Your task to perform on an android device: Open location settings Image 0: 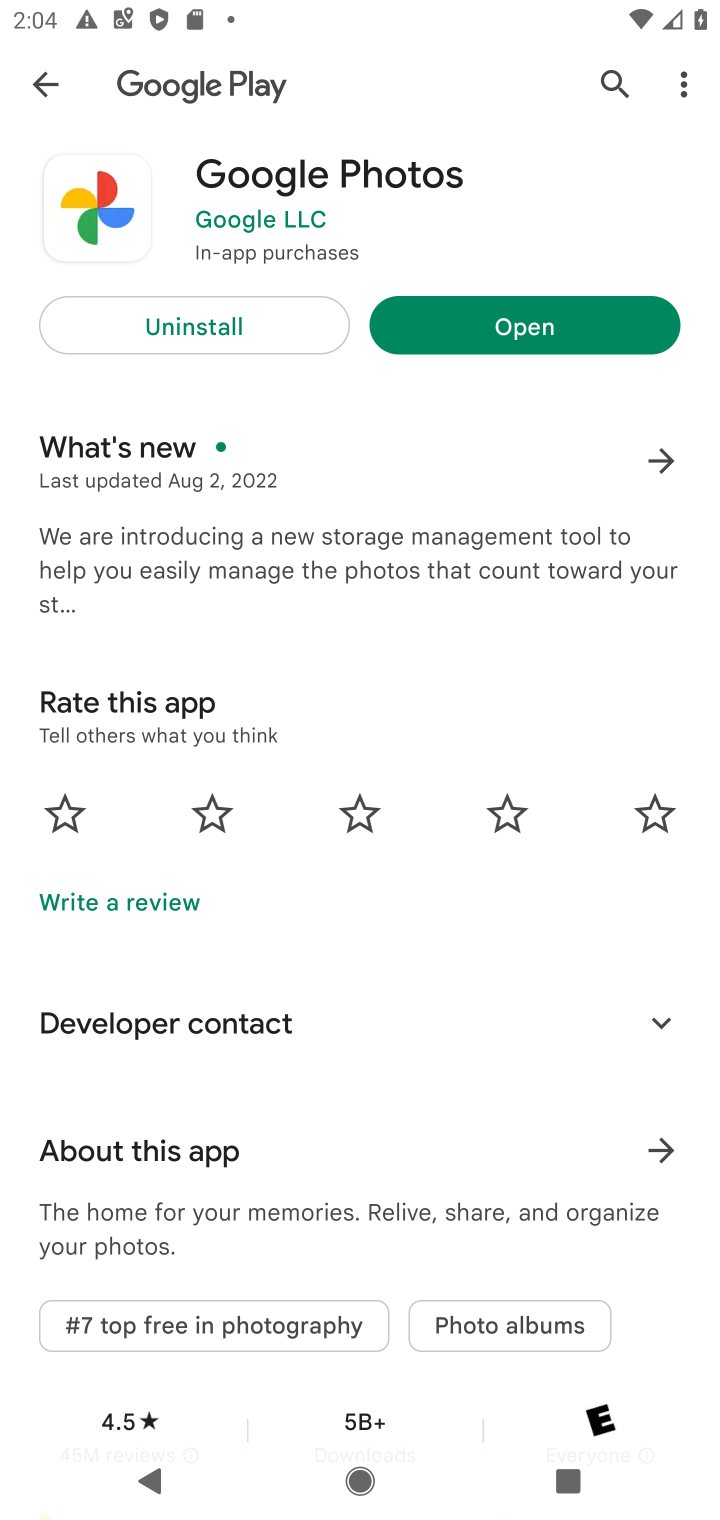
Step 0: press home button
Your task to perform on an android device: Open location settings Image 1: 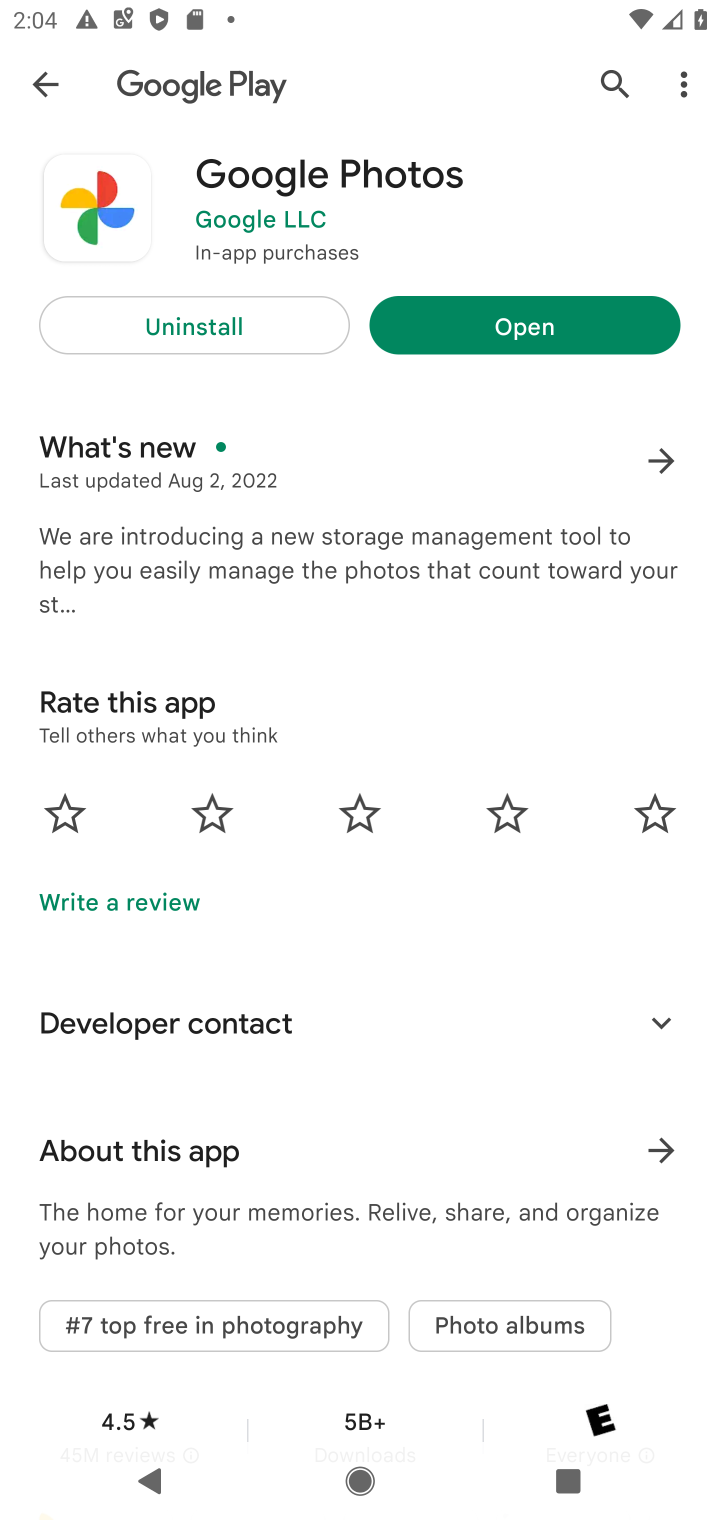
Step 1: press home button
Your task to perform on an android device: Open location settings Image 2: 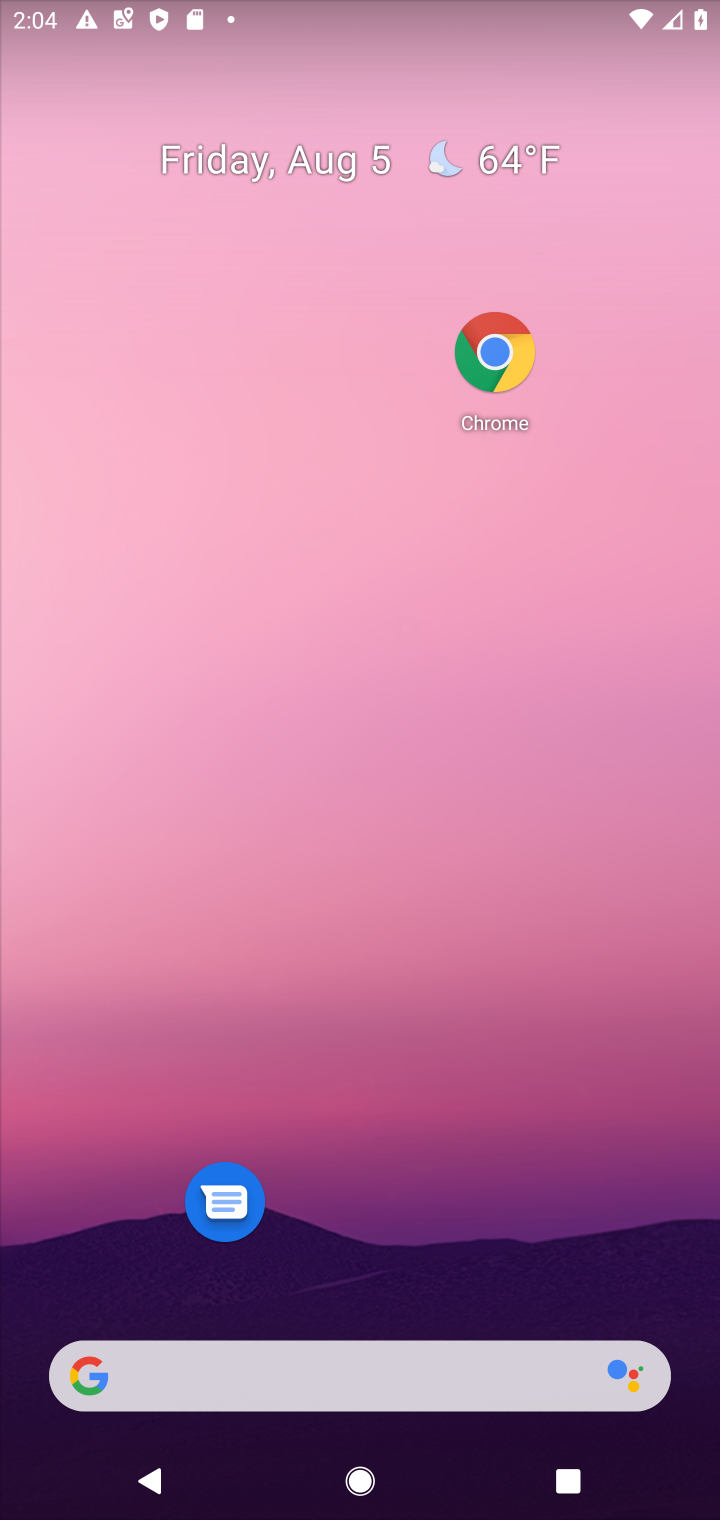
Step 2: drag from (422, 471) to (379, 201)
Your task to perform on an android device: Open location settings Image 3: 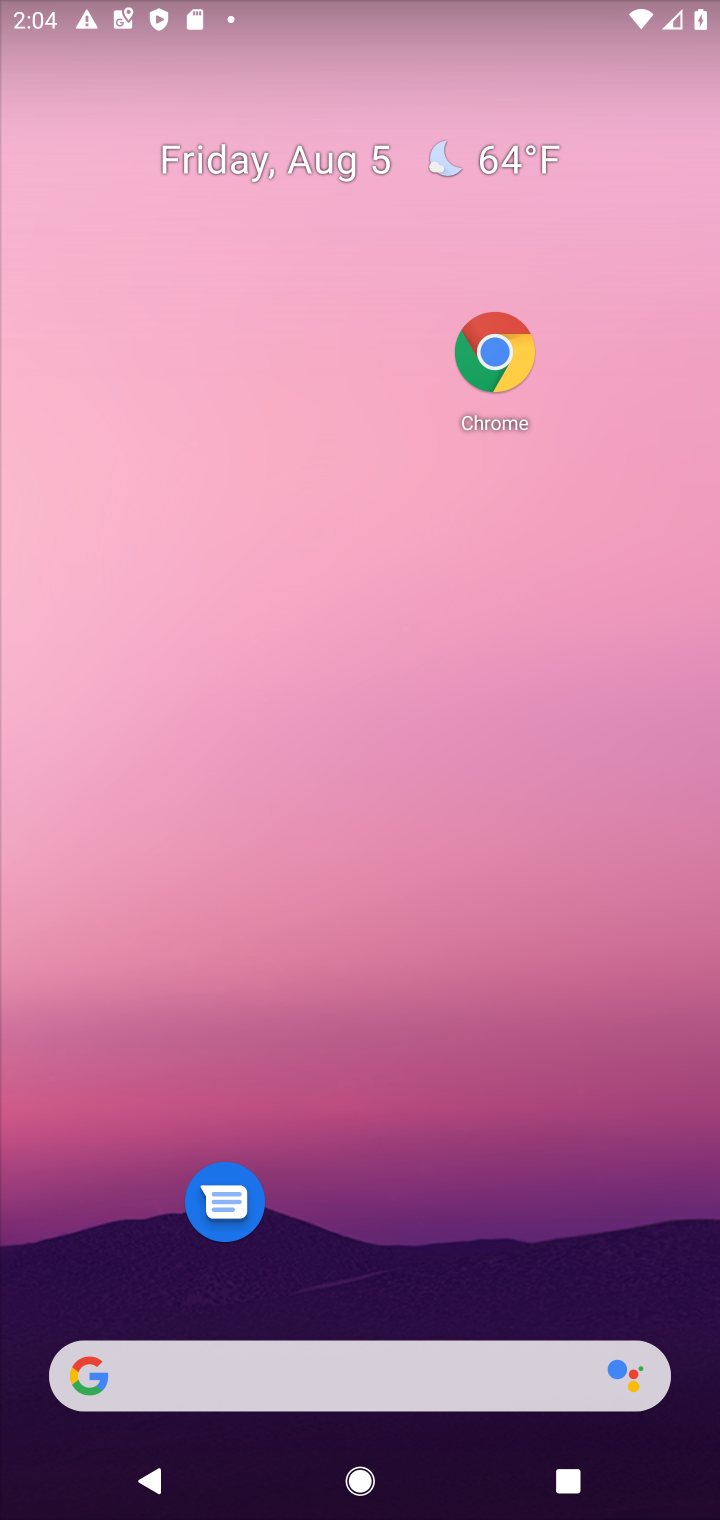
Step 3: drag from (425, 959) to (304, 24)
Your task to perform on an android device: Open location settings Image 4: 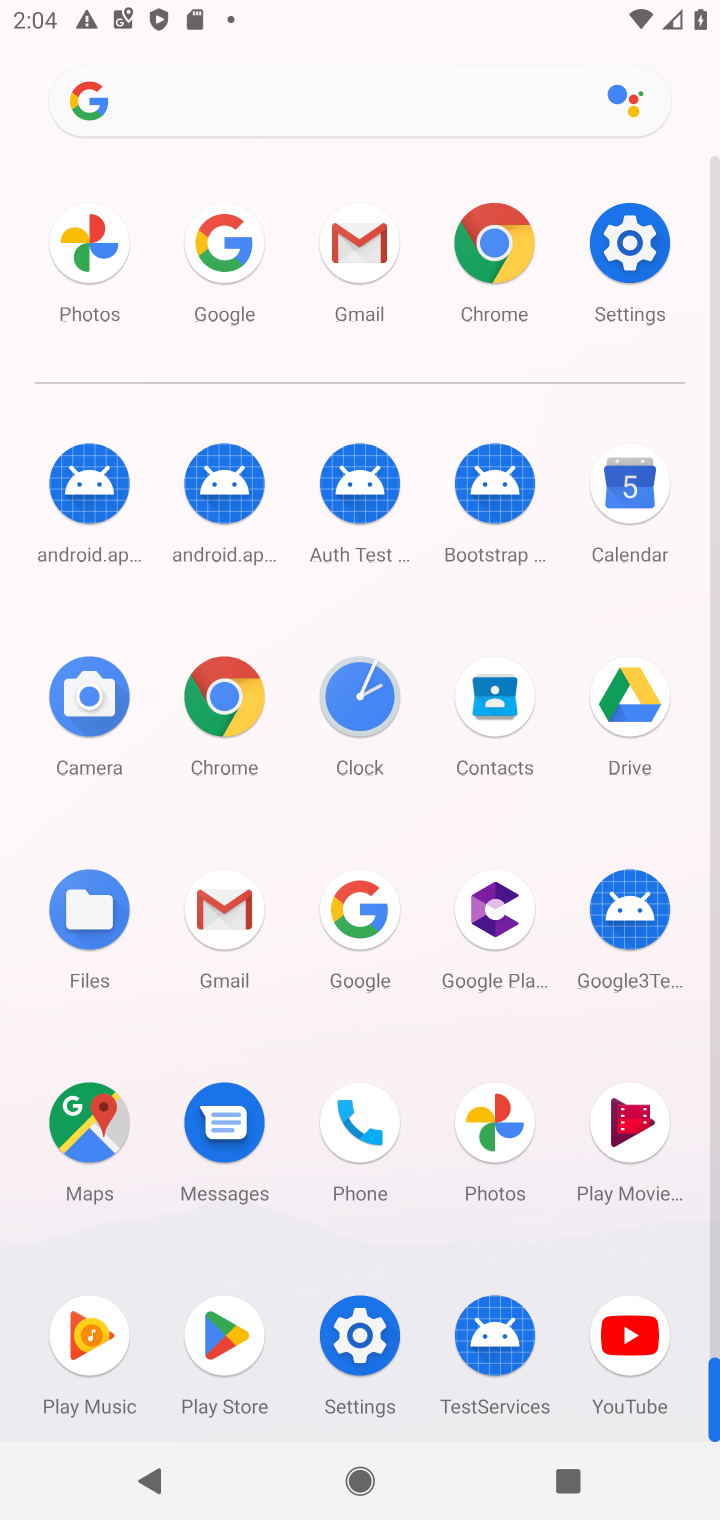
Step 4: click (348, 1331)
Your task to perform on an android device: Open location settings Image 5: 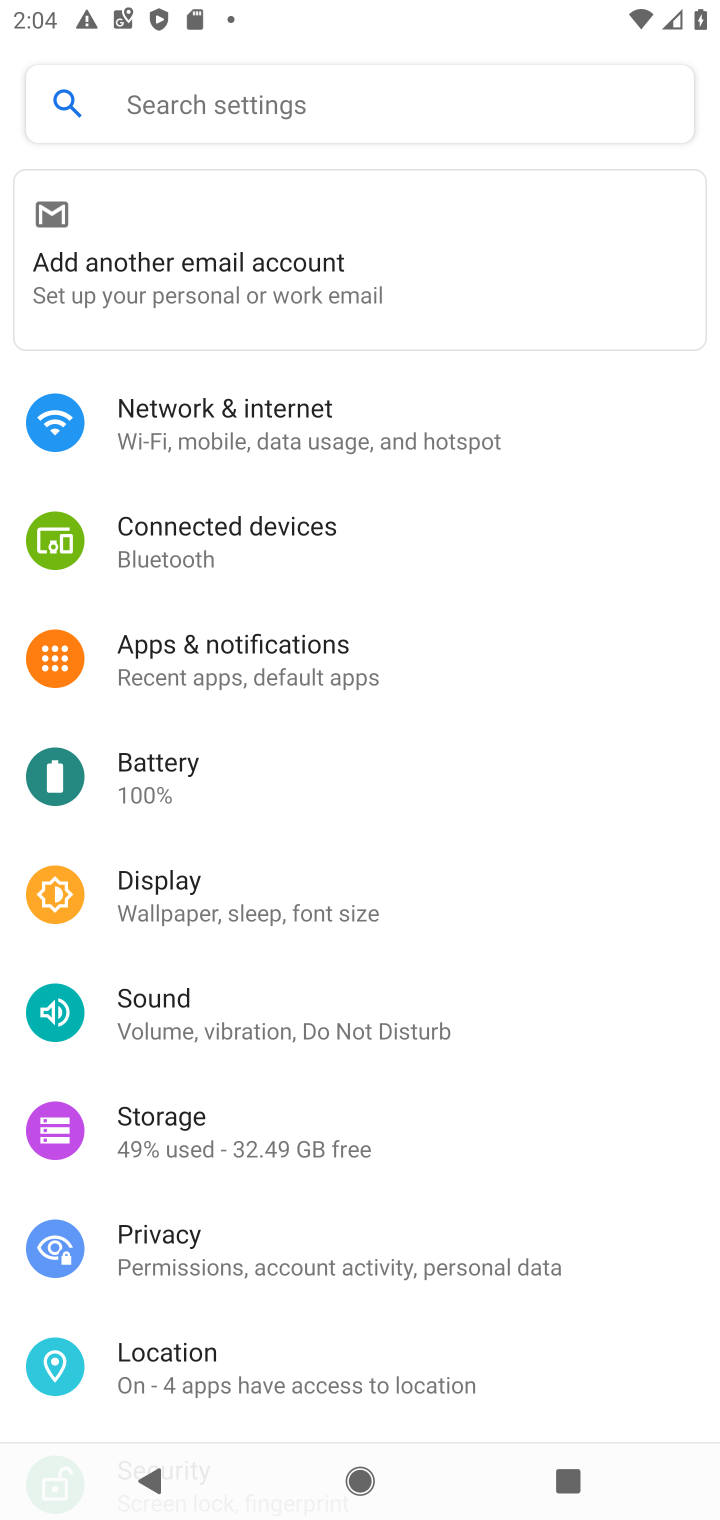
Step 5: click (192, 1355)
Your task to perform on an android device: Open location settings Image 6: 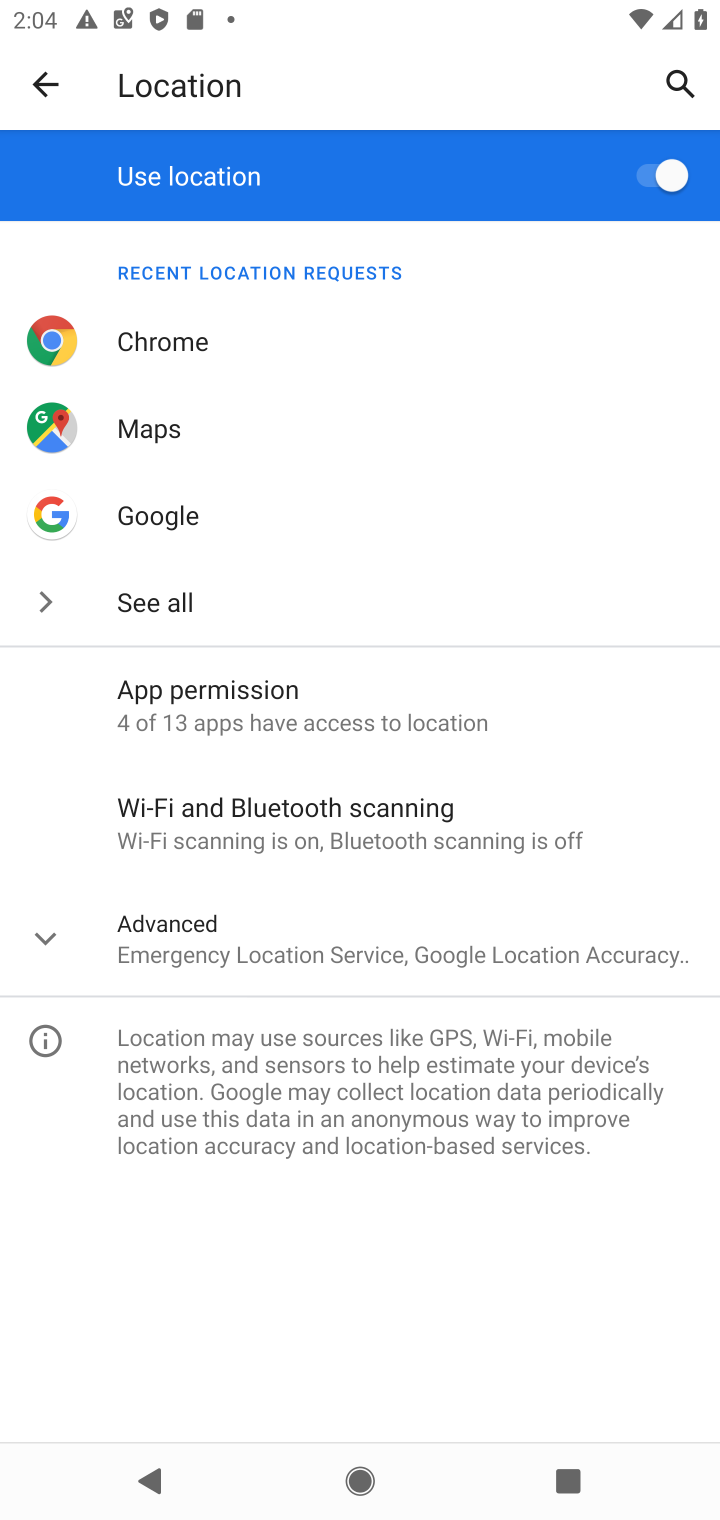
Step 6: task complete